Your task to perform on an android device: Open Google Chrome Image 0: 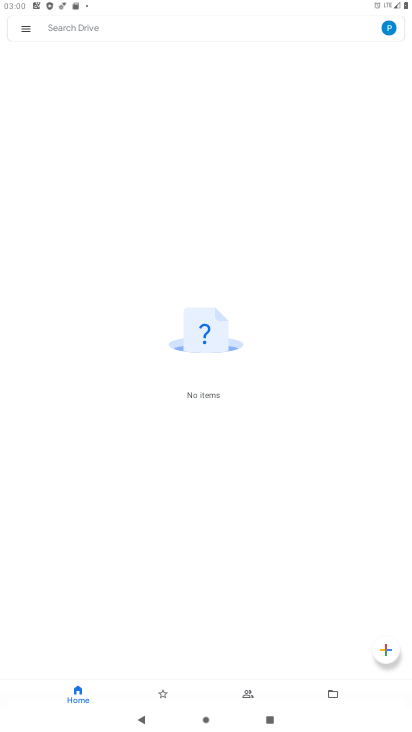
Step 0: press home button
Your task to perform on an android device: Open Google Chrome Image 1: 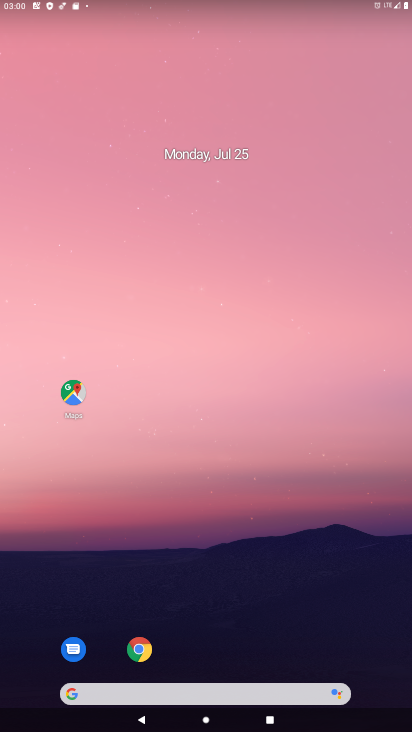
Step 1: click (142, 649)
Your task to perform on an android device: Open Google Chrome Image 2: 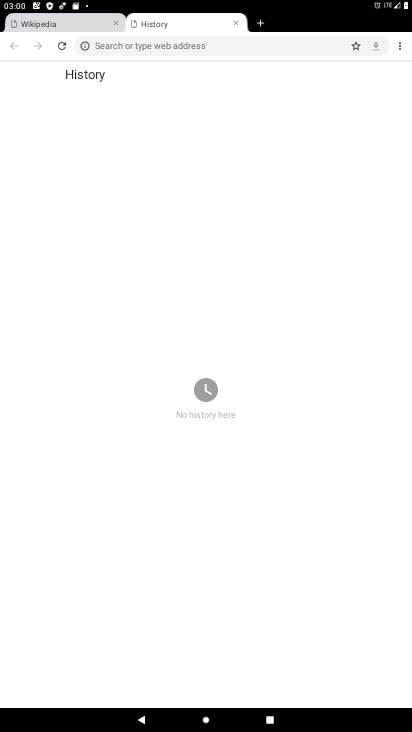
Step 2: task complete